Your task to perform on an android device: Open eBay Image 0: 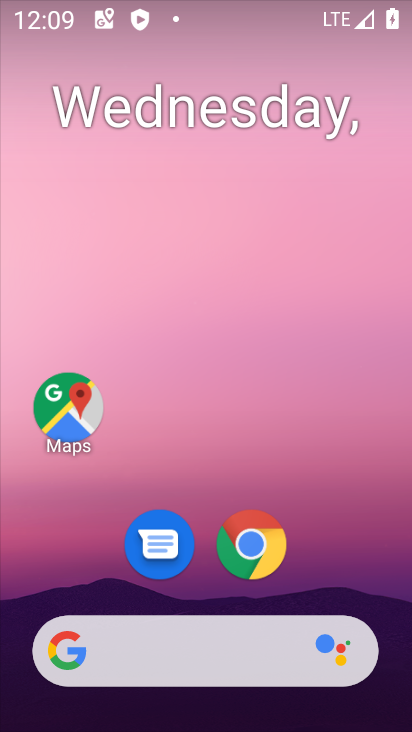
Step 0: drag from (399, 633) to (273, 71)
Your task to perform on an android device: Open eBay Image 1: 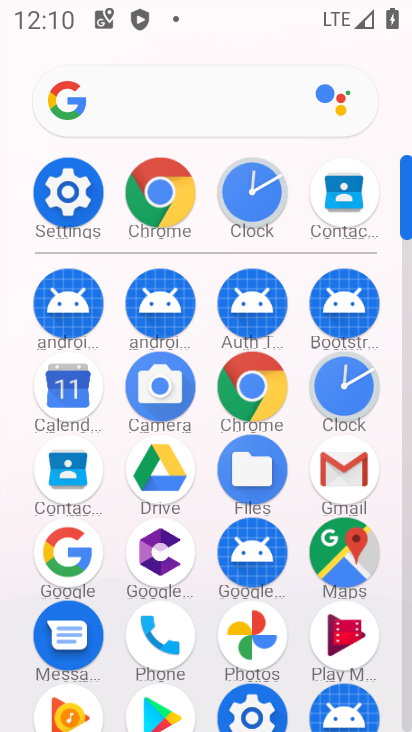
Step 1: click (152, 207)
Your task to perform on an android device: Open eBay Image 2: 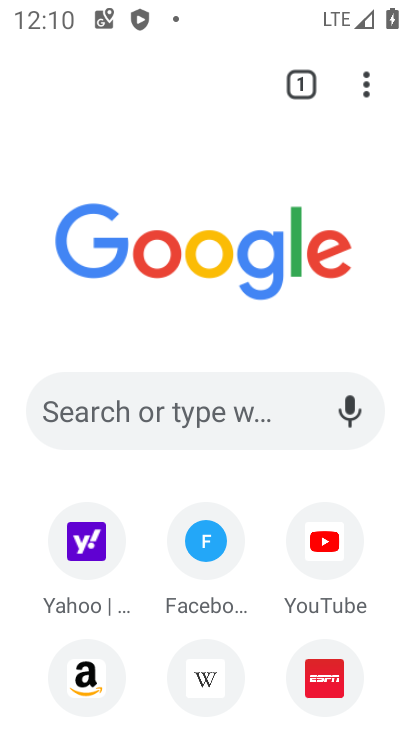
Step 2: click (160, 383)
Your task to perform on an android device: Open eBay Image 3: 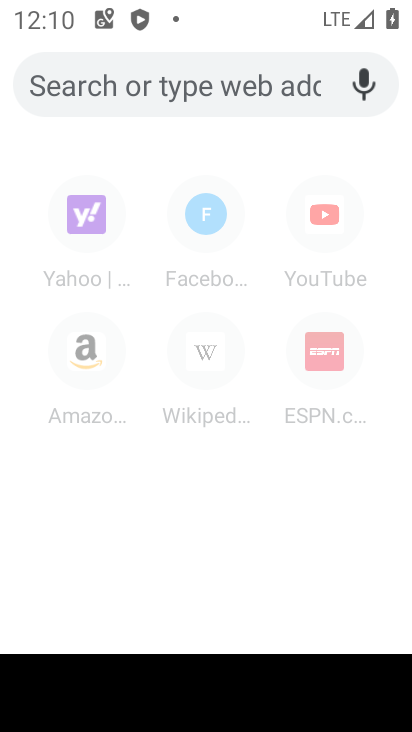
Step 3: type "ebay"
Your task to perform on an android device: Open eBay Image 4: 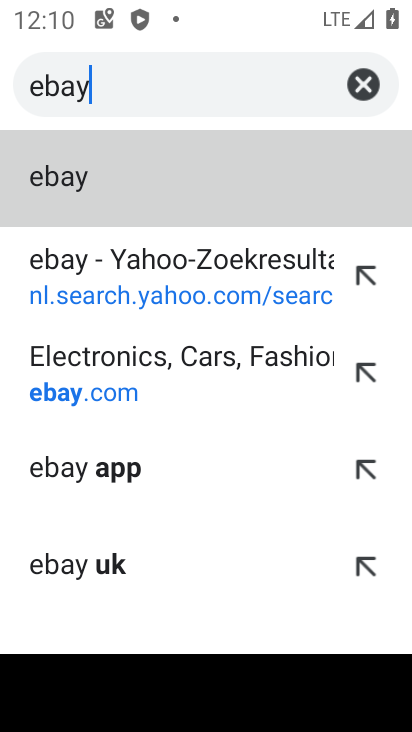
Step 4: click (223, 207)
Your task to perform on an android device: Open eBay Image 5: 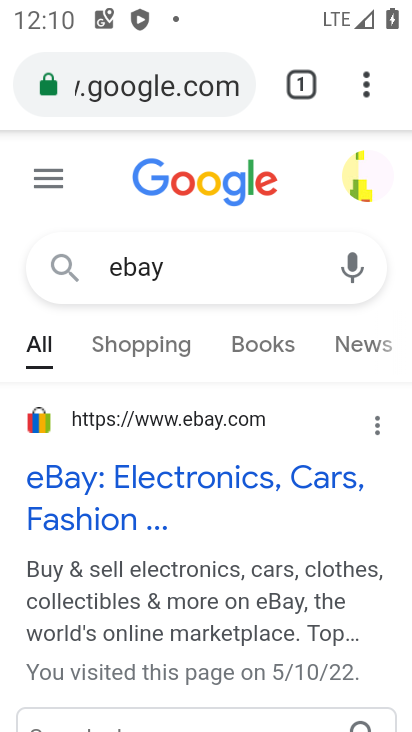
Step 5: click (195, 485)
Your task to perform on an android device: Open eBay Image 6: 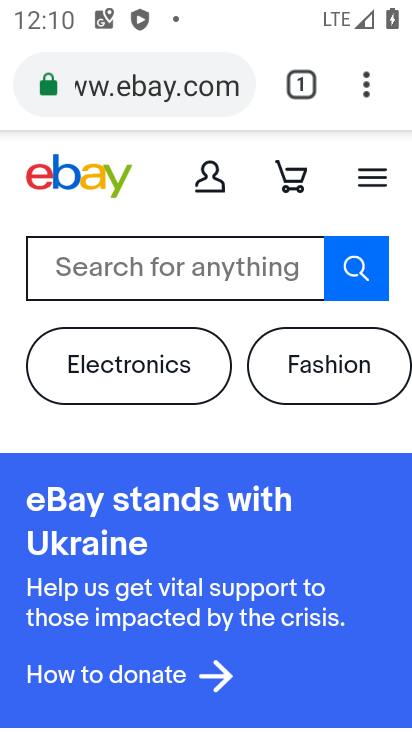
Step 6: task complete